Your task to perform on an android device: turn on notifications settings in the gmail app Image 0: 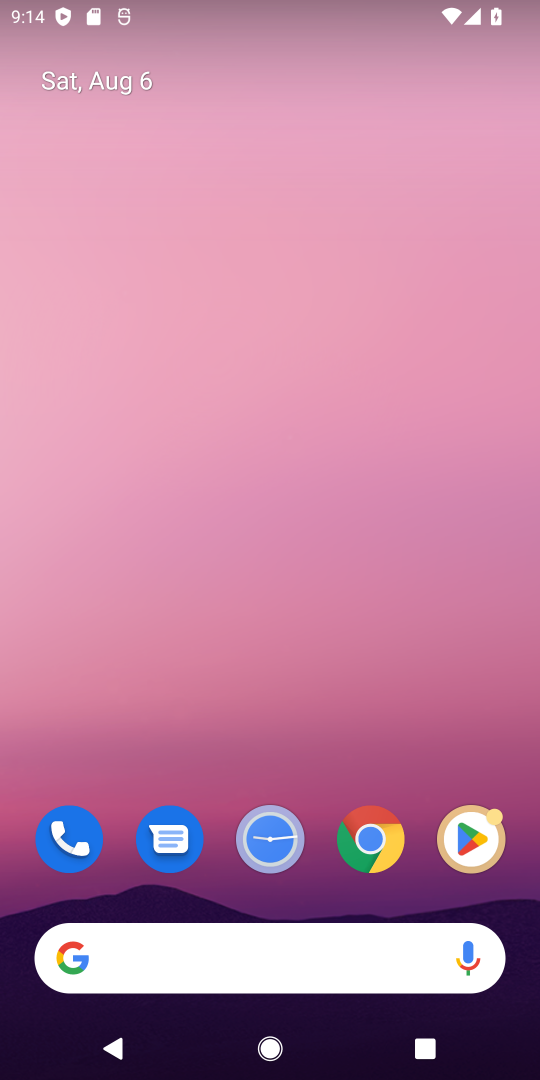
Step 0: press home button
Your task to perform on an android device: turn on notifications settings in the gmail app Image 1: 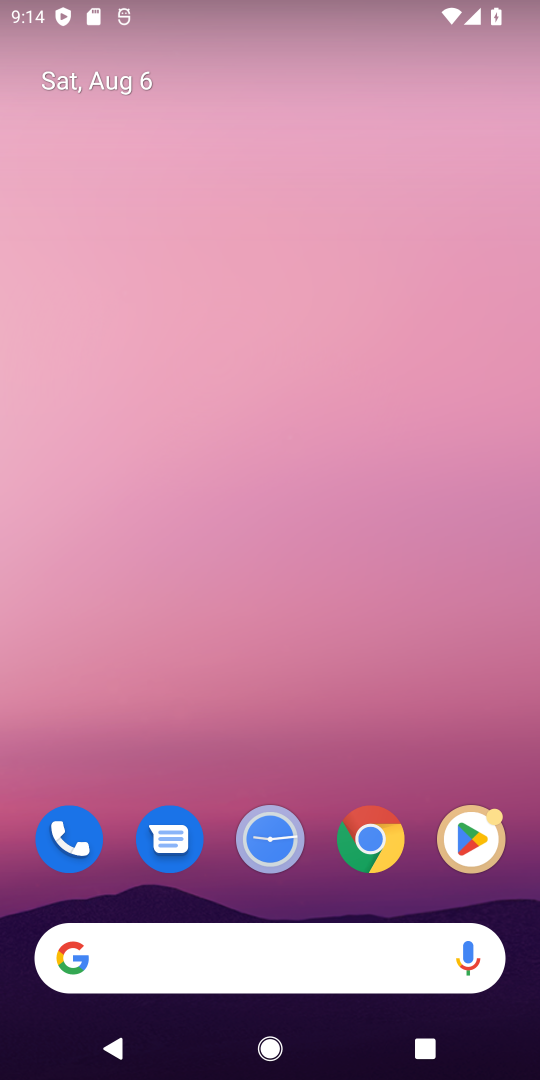
Step 1: drag from (308, 813) to (289, 148)
Your task to perform on an android device: turn on notifications settings in the gmail app Image 2: 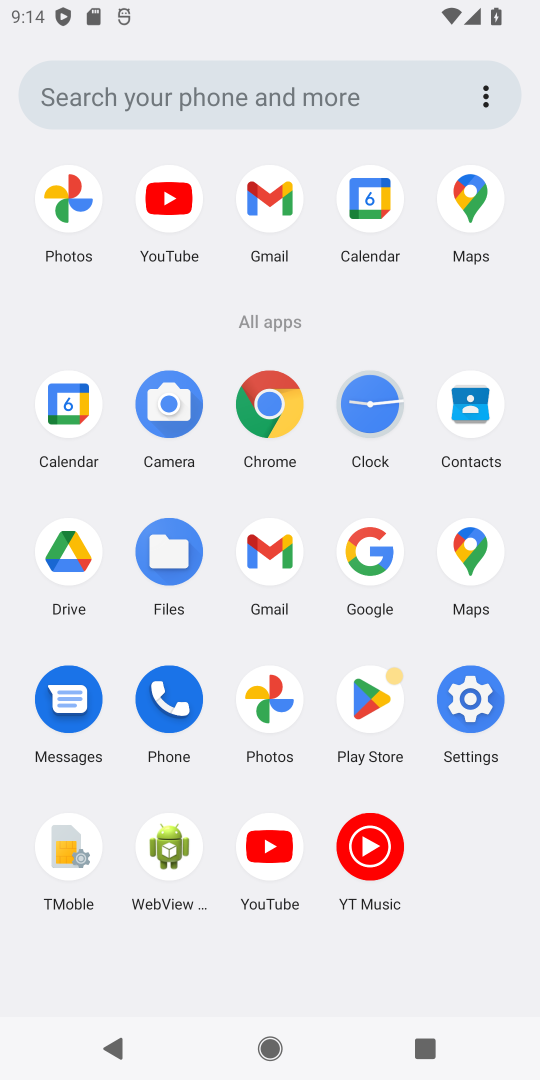
Step 2: click (255, 549)
Your task to perform on an android device: turn on notifications settings in the gmail app Image 3: 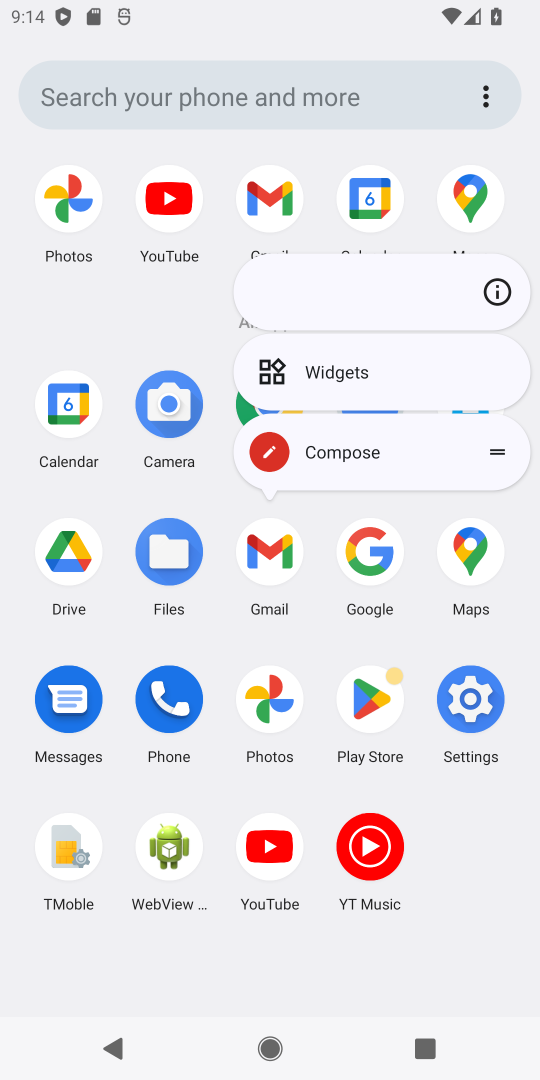
Step 3: click (276, 549)
Your task to perform on an android device: turn on notifications settings in the gmail app Image 4: 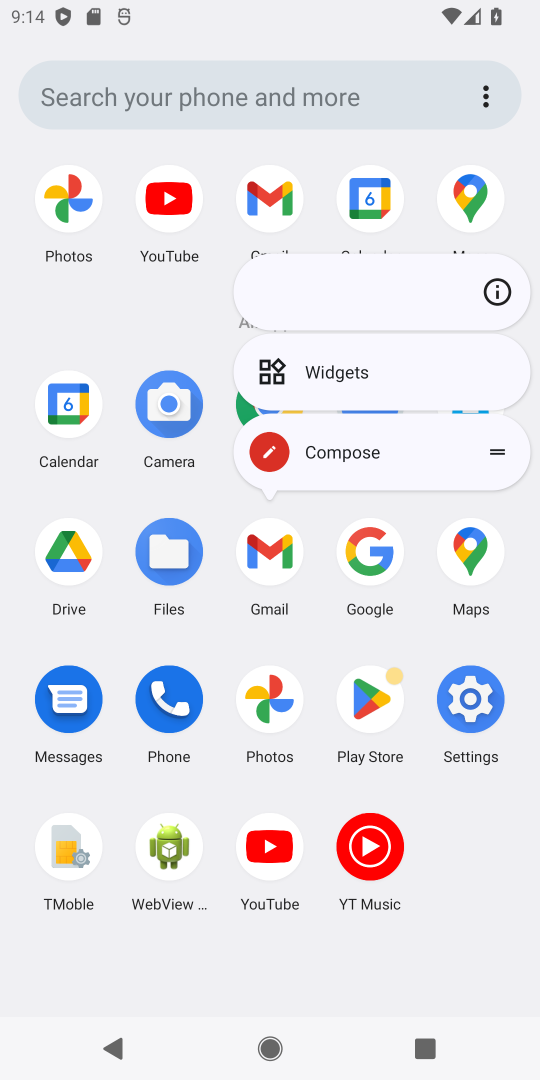
Step 4: click (270, 544)
Your task to perform on an android device: turn on notifications settings in the gmail app Image 5: 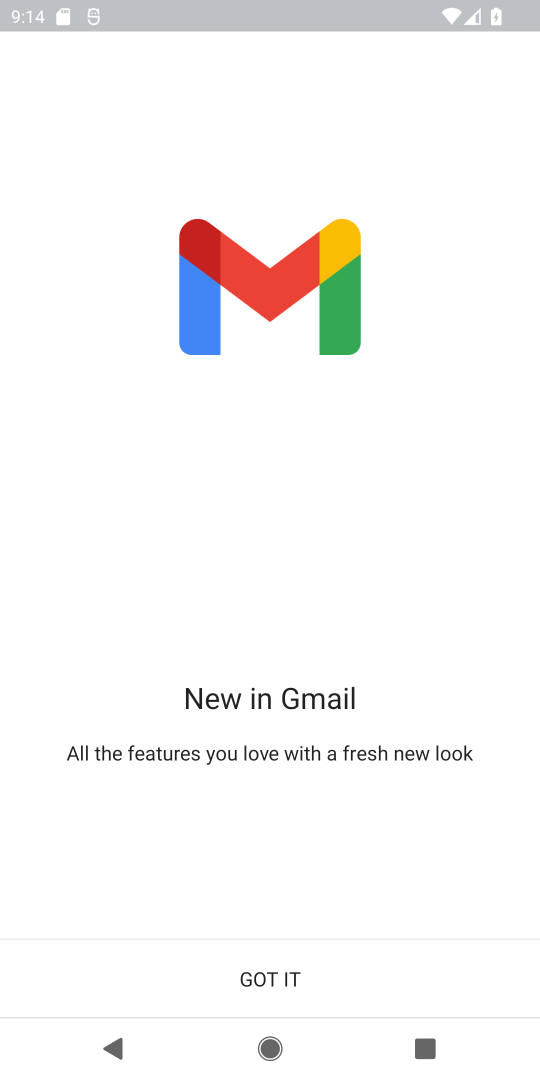
Step 5: click (269, 977)
Your task to perform on an android device: turn on notifications settings in the gmail app Image 6: 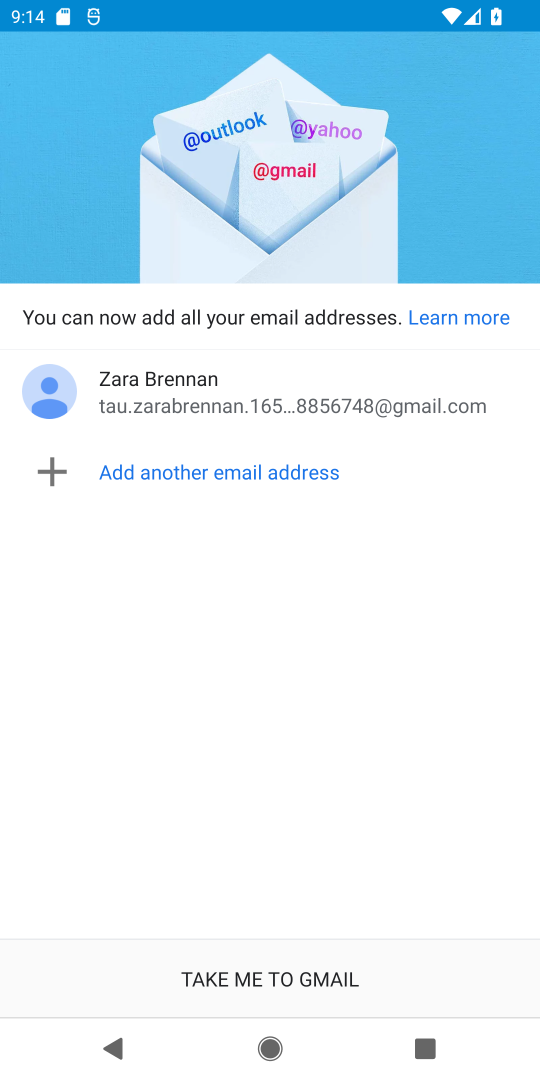
Step 6: click (270, 977)
Your task to perform on an android device: turn on notifications settings in the gmail app Image 7: 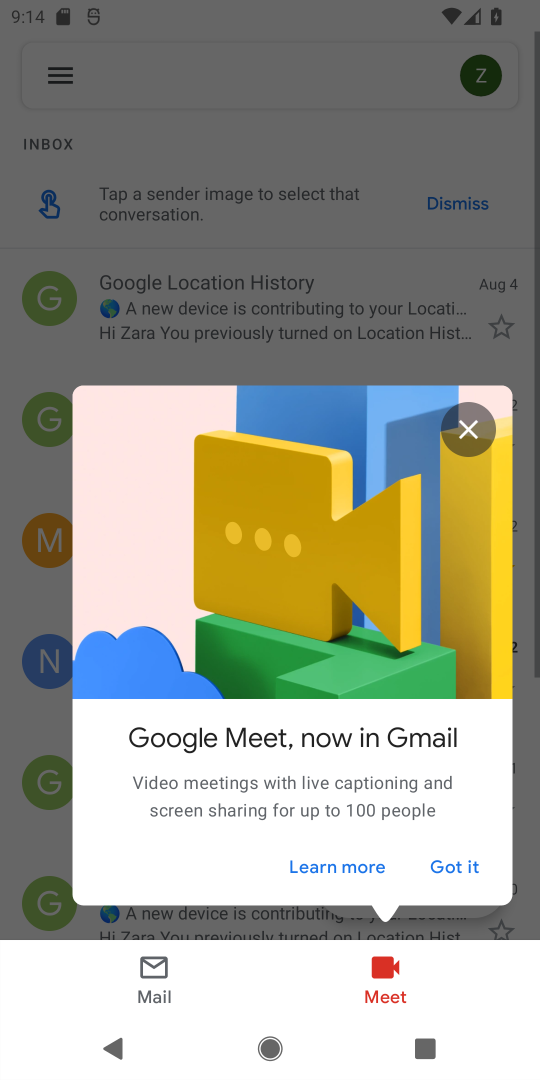
Step 7: click (449, 874)
Your task to perform on an android device: turn on notifications settings in the gmail app Image 8: 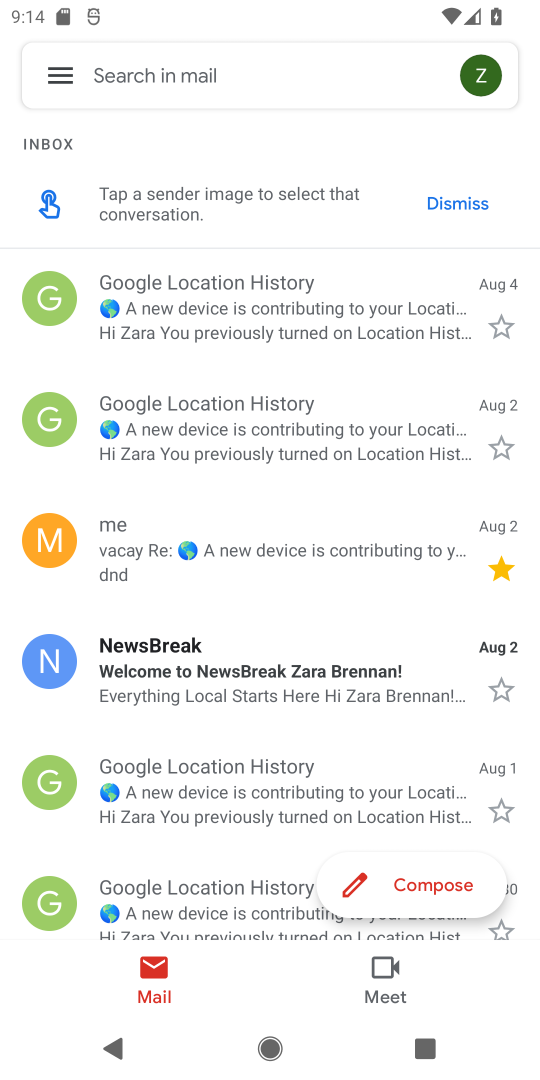
Step 8: click (51, 70)
Your task to perform on an android device: turn on notifications settings in the gmail app Image 9: 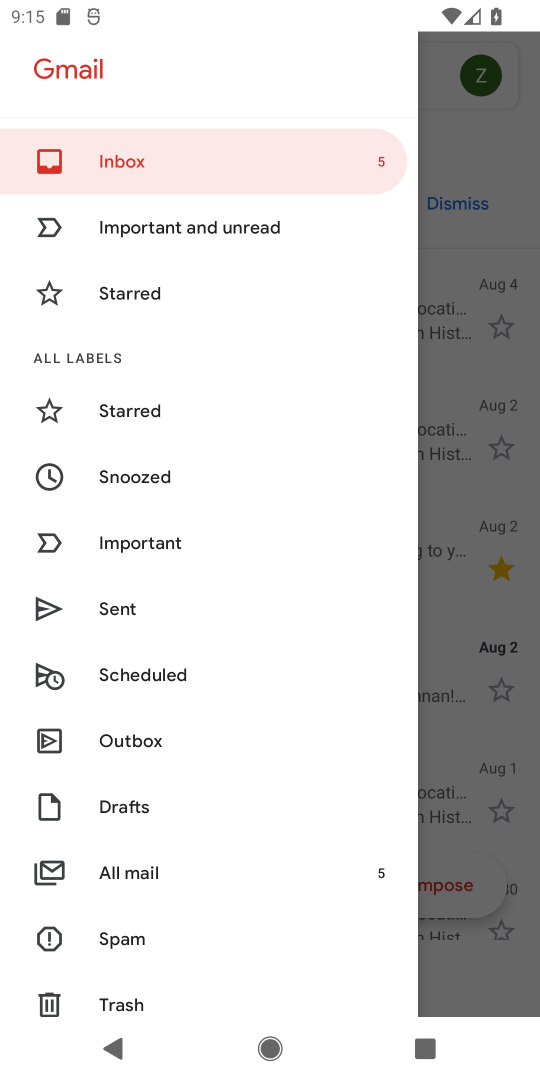
Step 9: drag from (163, 873) to (208, 238)
Your task to perform on an android device: turn on notifications settings in the gmail app Image 10: 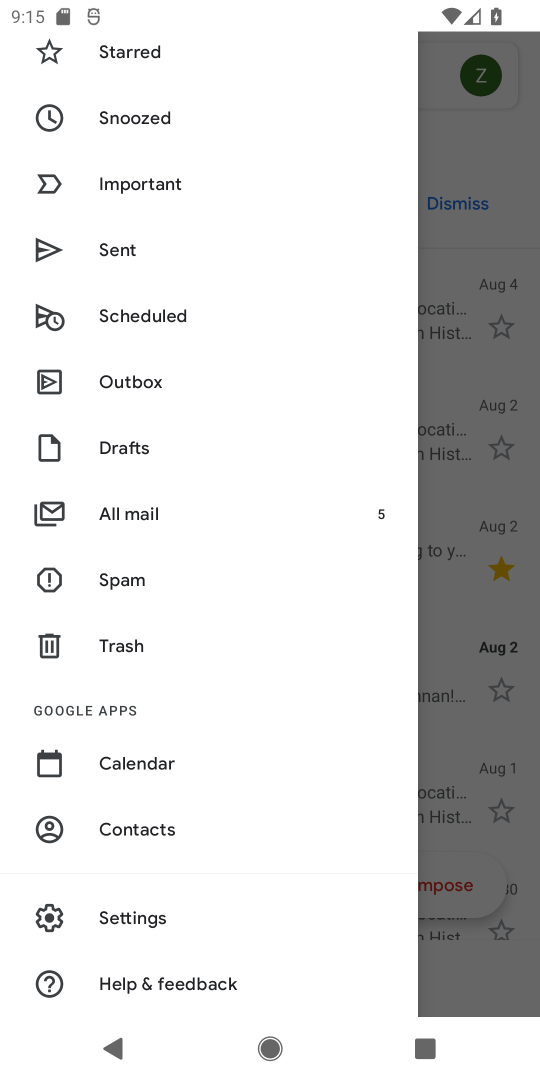
Step 10: click (159, 917)
Your task to perform on an android device: turn on notifications settings in the gmail app Image 11: 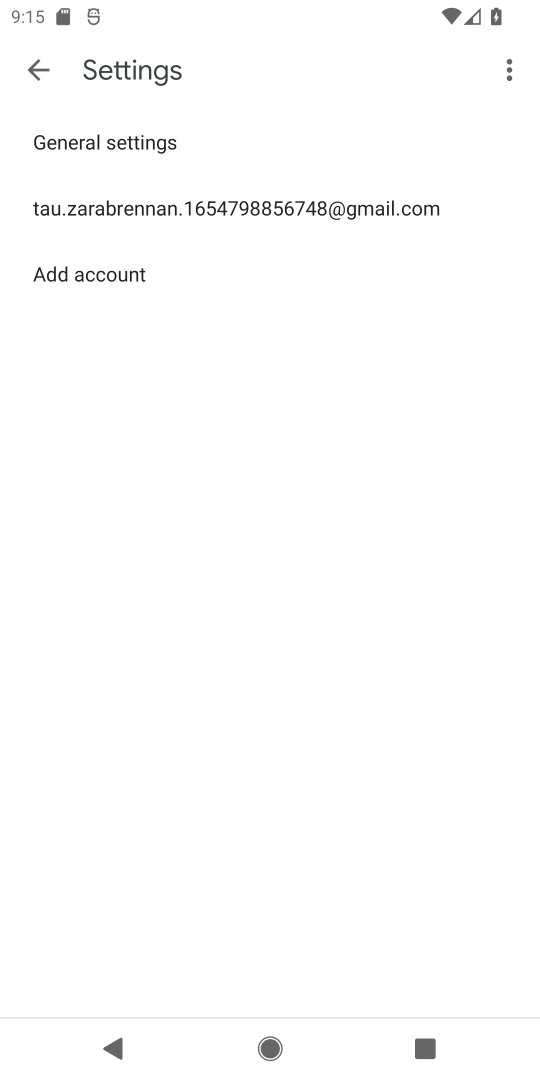
Step 11: click (167, 158)
Your task to perform on an android device: turn on notifications settings in the gmail app Image 12: 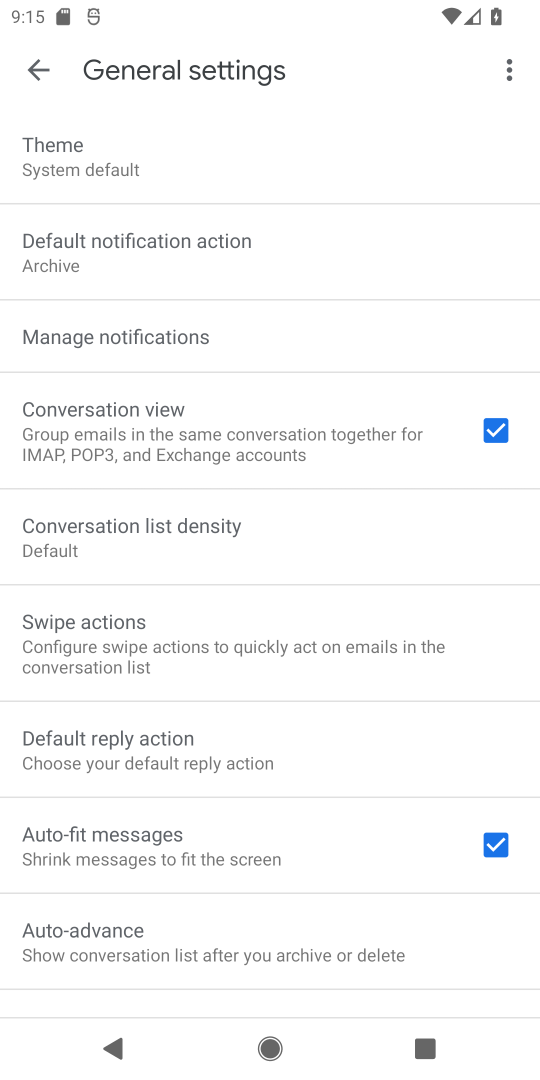
Step 12: click (164, 328)
Your task to perform on an android device: turn on notifications settings in the gmail app Image 13: 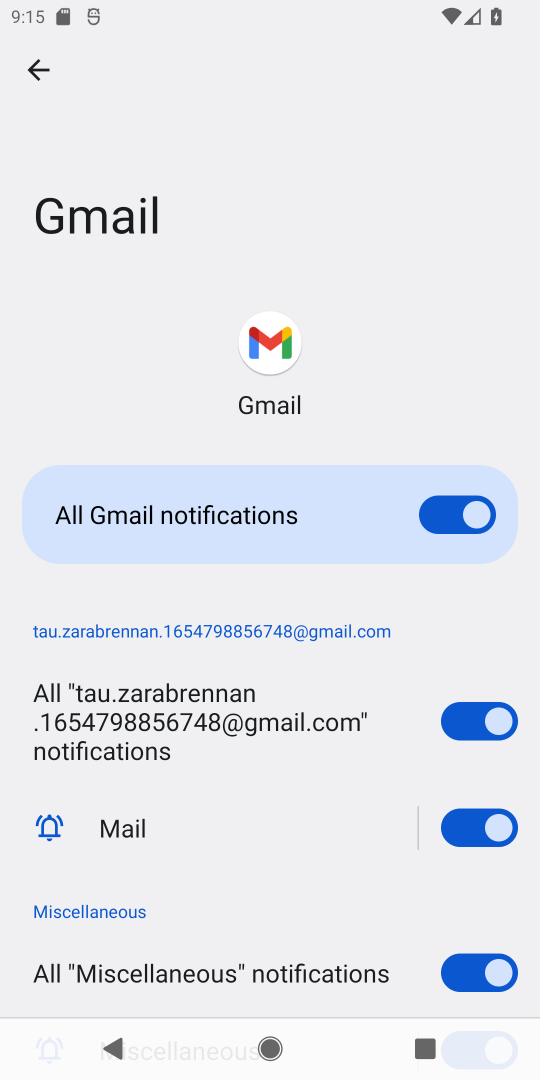
Step 13: task complete